Your task to perform on an android device: check google app version Image 0: 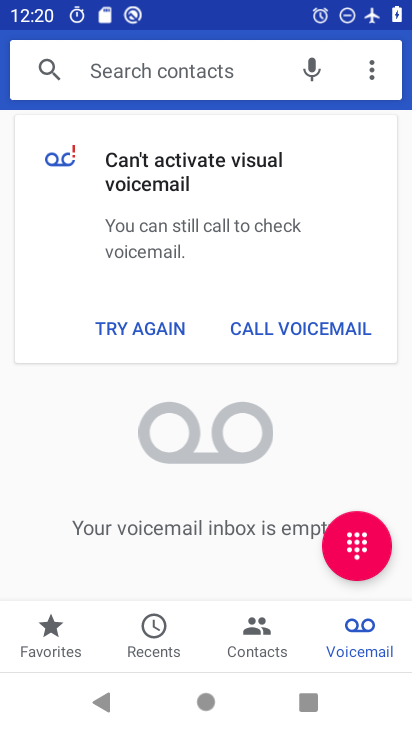
Step 0: press home button
Your task to perform on an android device: check google app version Image 1: 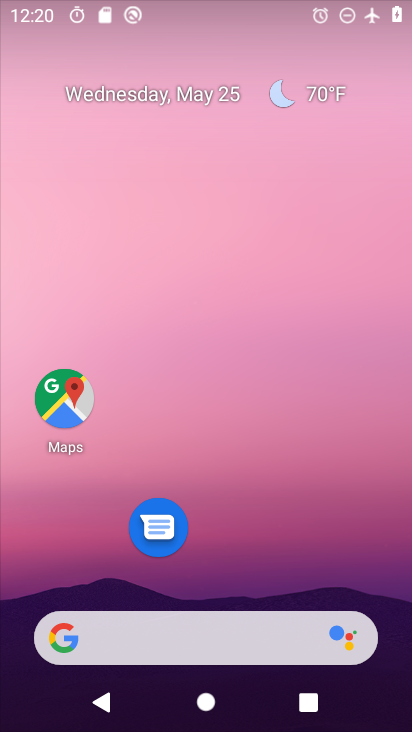
Step 1: drag from (202, 564) to (232, 88)
Your task to perform on an android device: check google app version Image 2: 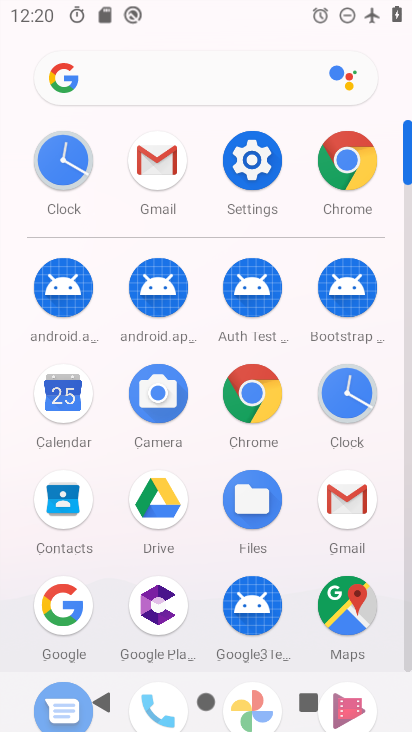
Step 2: click (67, 612)
Your task to perform on an android device: check google app version Image 3: 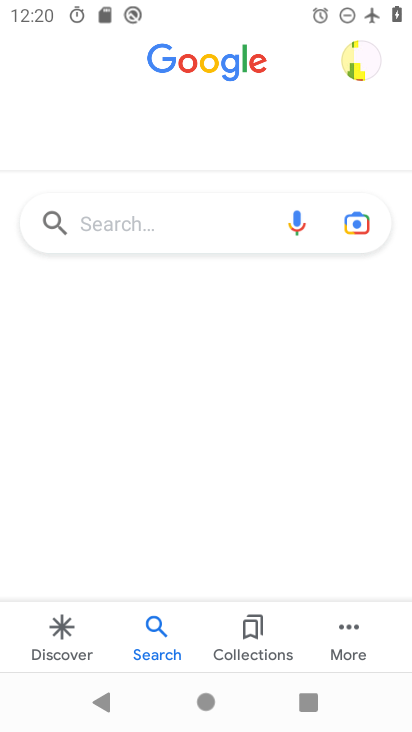
Step 3: click (358, 649)
Your task to perform on an android device: check google app version Image 4: 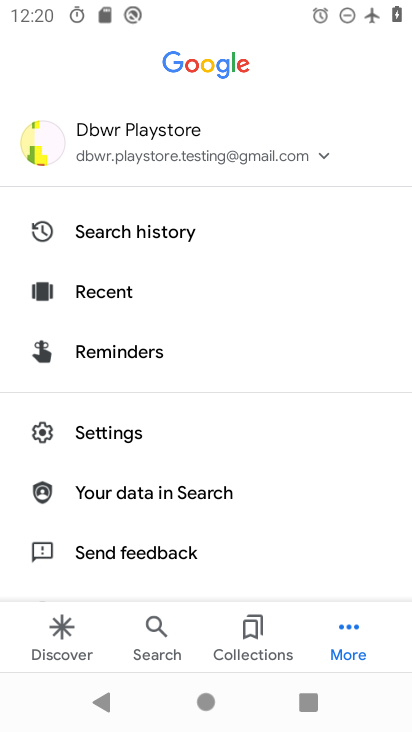
Step 4: drag from (185, 540) to (204, 155)
Your task to perform on an android device: check google app version Image 5: 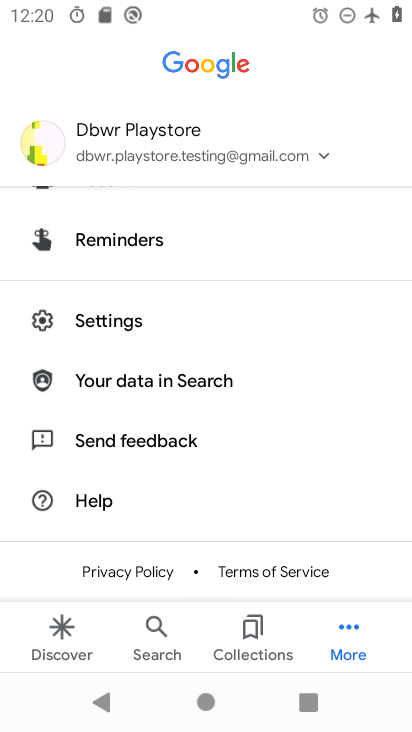
Step 5: click (97, 324)
Your task to perform on an android device: check google app version Image 6: 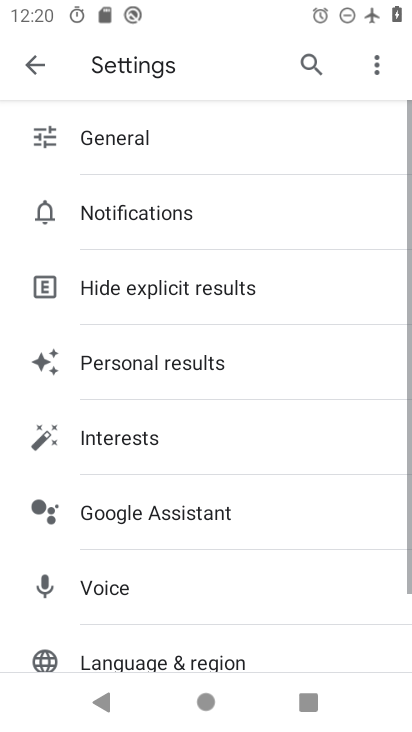
Step 6: drag from (256, 558) to (285, 131)
Your task to perform on an android device: check google app version Image 7: 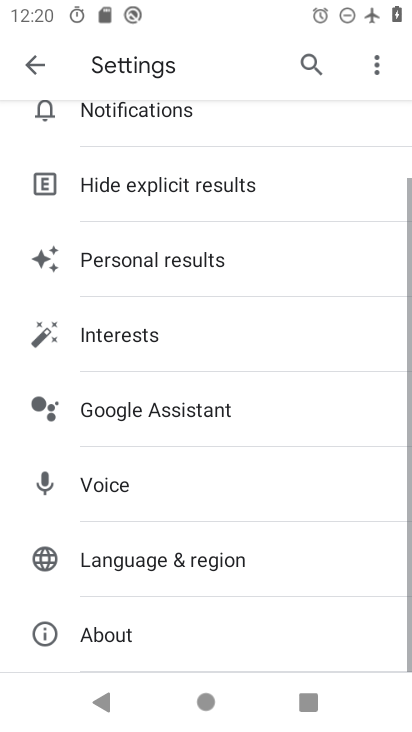
Step 7: click (131, 624)
Your task to perform on an android device: check google app version Image 8: 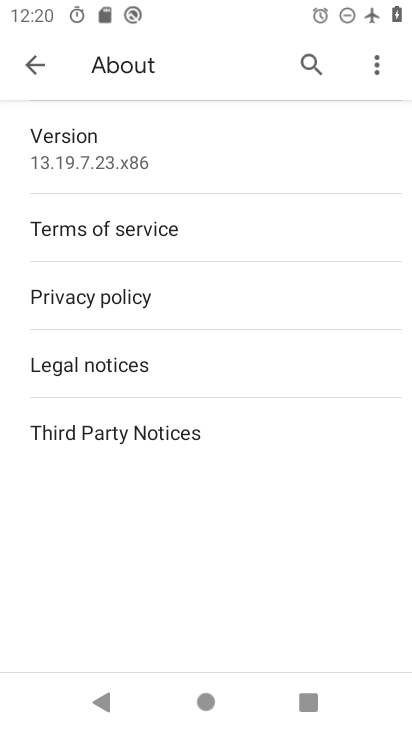
Step 8: click (133, 178)
Your task to perform on an android device: check google app version Image 9: 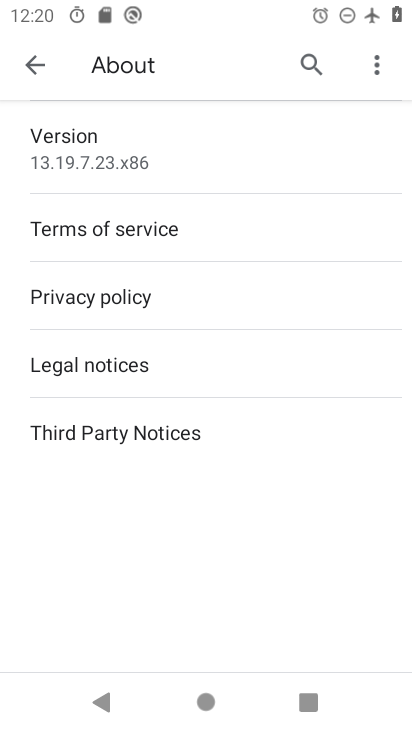
Step 9: click (161, 147)
Your task to perform on an android device: check google app version Image 10: 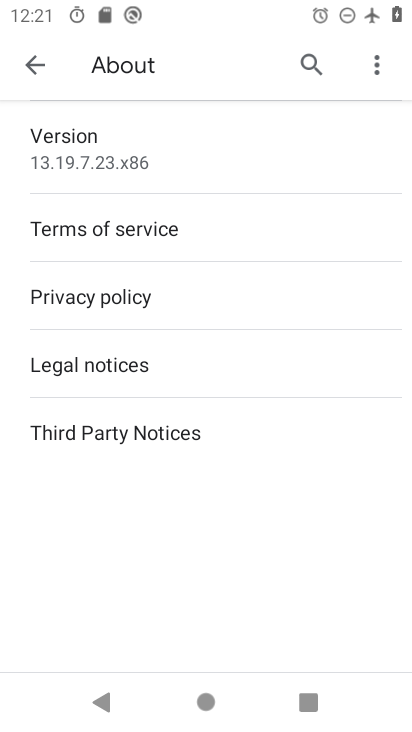
Step 10: task complete